Your task to perform on an android device: change notifications settings Image 0: 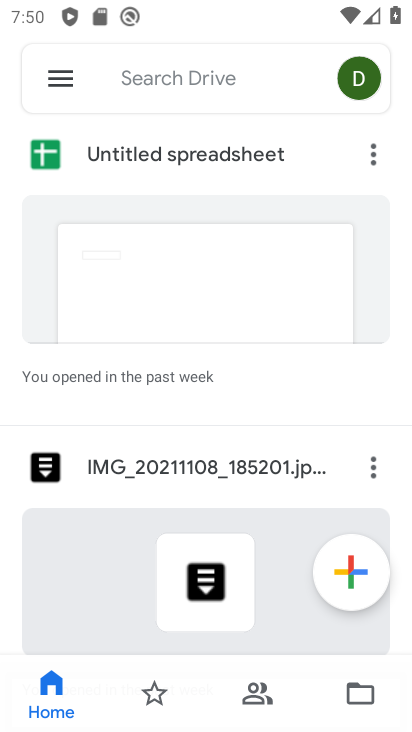
Step 0: press home button
Your task to perform on an android device: change notifications settings Image 1: 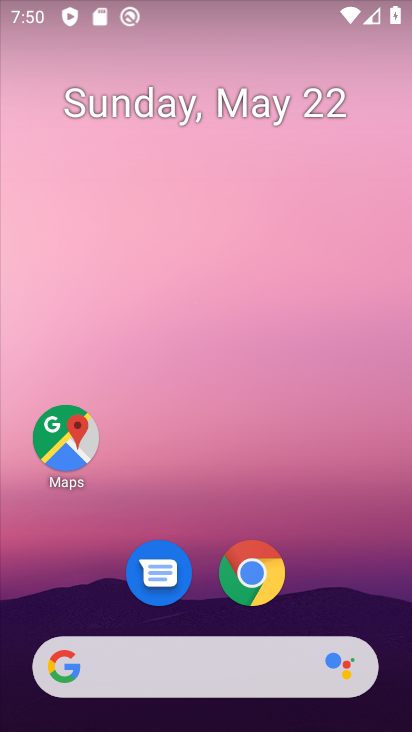
Step 1: drag from (336, 574) to (313, 65)
Your task to perform on an android device: change notifications settings Image 2: 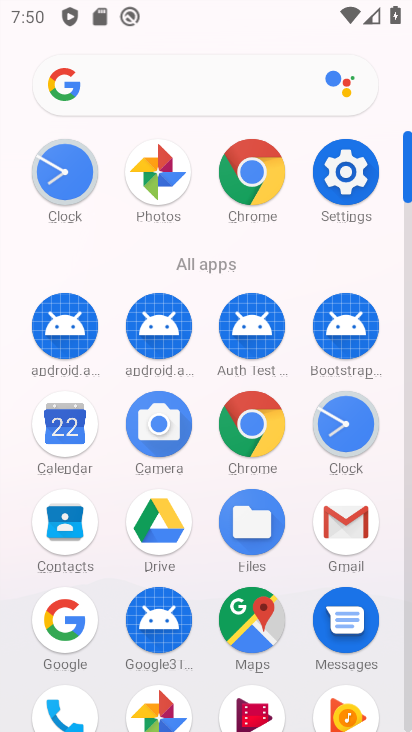
Step 2: click (338, 172)
Your task to perform on an android device: change notifications settings Image 3: 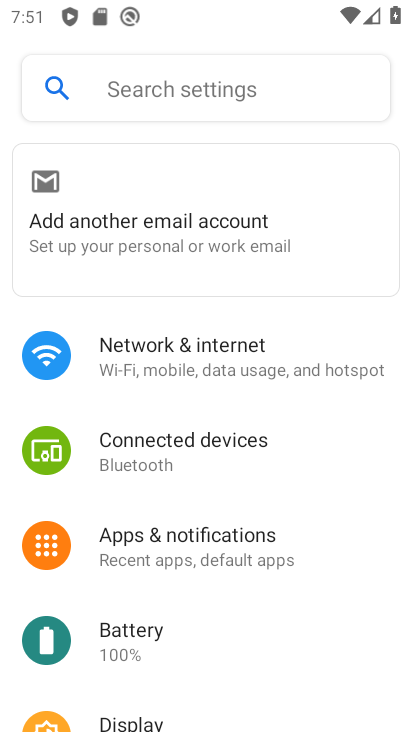
Step 3: drag from (231, 606) to (229, 326)
Your task to perform on an android device: change notifications settings Image 4: 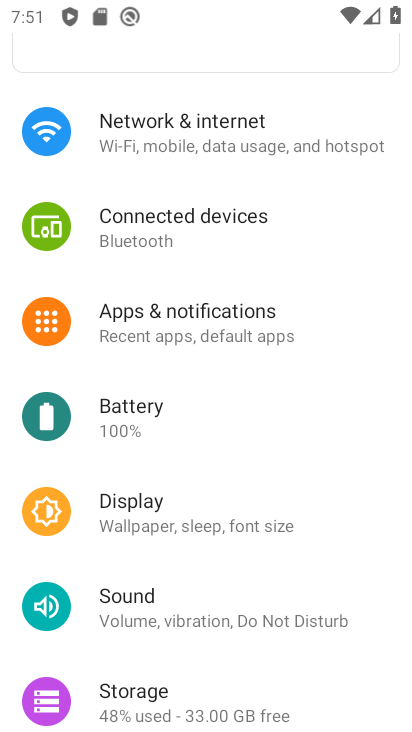
Step 4: click (210, 327)
Your task to perform on an android device: change notifications settings Image 5: 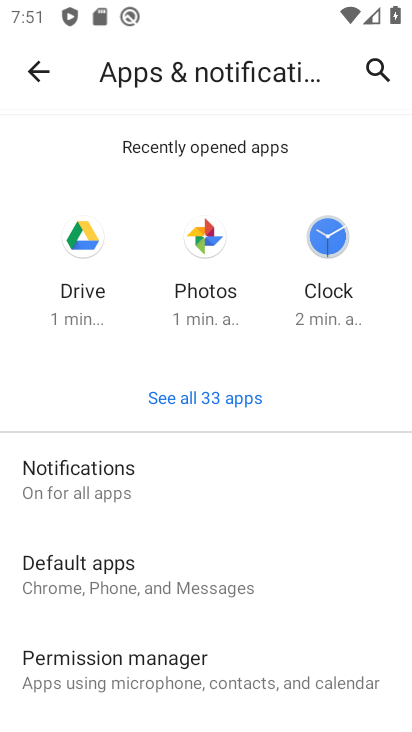
Step 5: click (124, 487)
Your task to perform on an android device: change notifications settings Image 6: 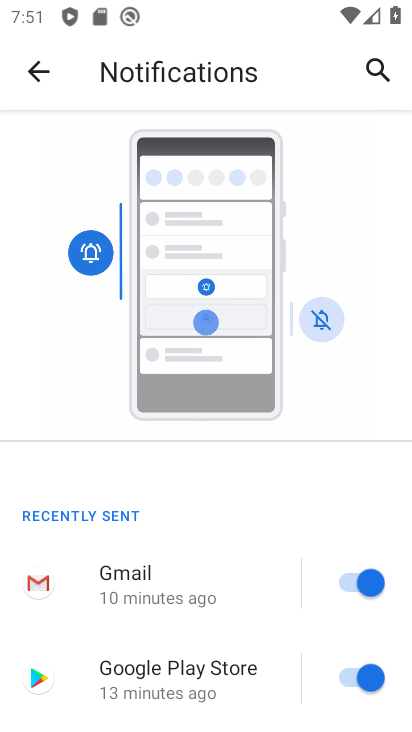
Step 6: click (358, 584)
Your task to perform on an android device: change notifications settings Image 7: 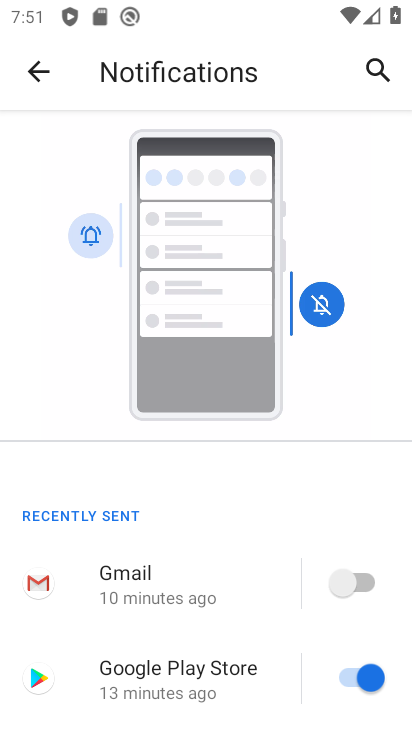
Step 7: task complete